Your task to perform on an android device: Open Chrome and go to the settings page Image 0: 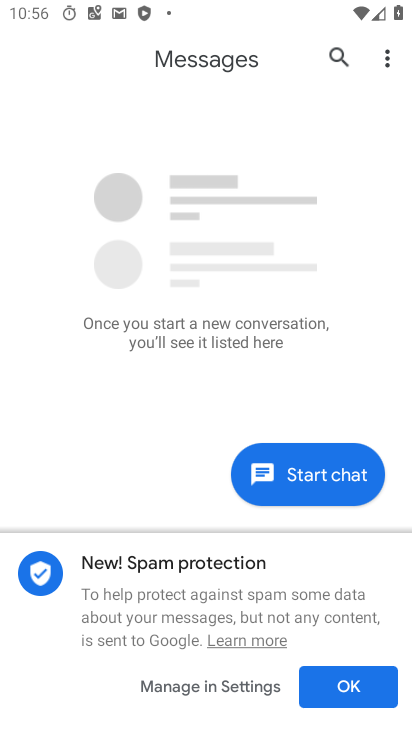
Step 0: press back button
Your task to perform on an android device: Open Chrome and go to the settings page Image 1: 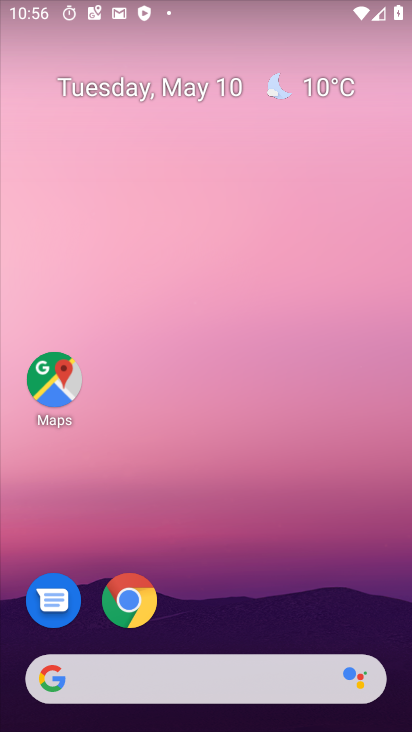
Step 1: drag from (224, 590) to (243, 59)
Your task to perform on an android device: Open Chrome and go to the settings page Image 2: 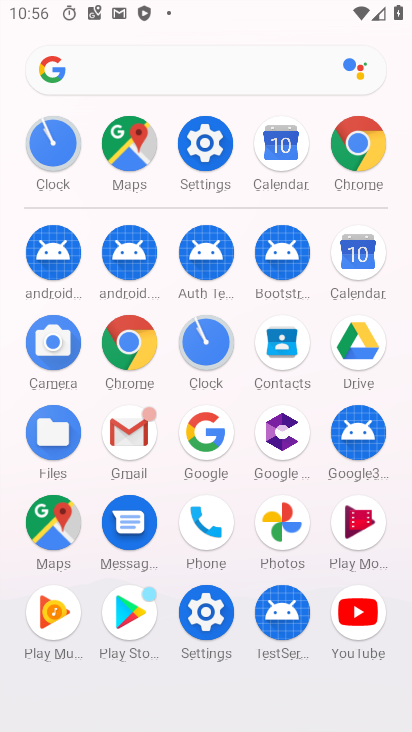
Step 2: drag from (6, 533) to (6, 241)
Your task to perform on an android device: Open Chrome and go to the settings page Image 3: 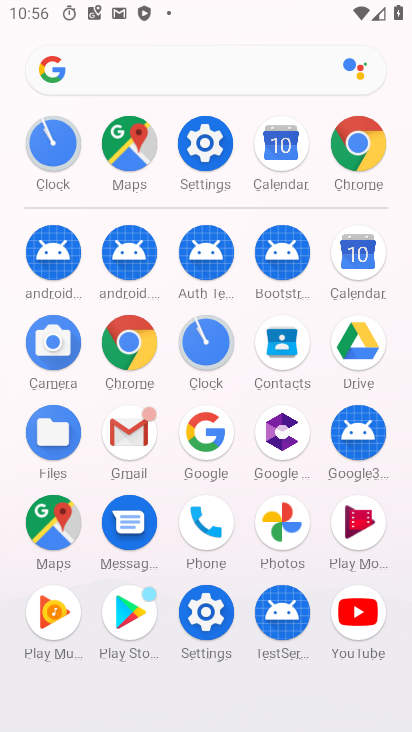
Step 3: click (127, 338)
Your task to perform on an android device: Open Chrome and go to the settings page Image 4: 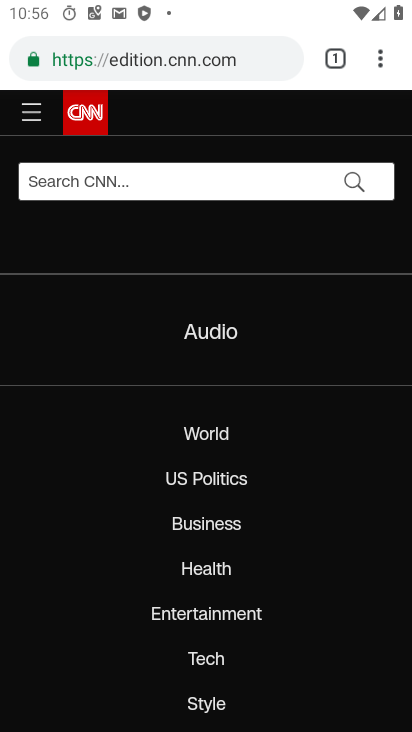
Step 4: task complete